Your task to perform on an android device: allow cookies in the chrome app Image 0: 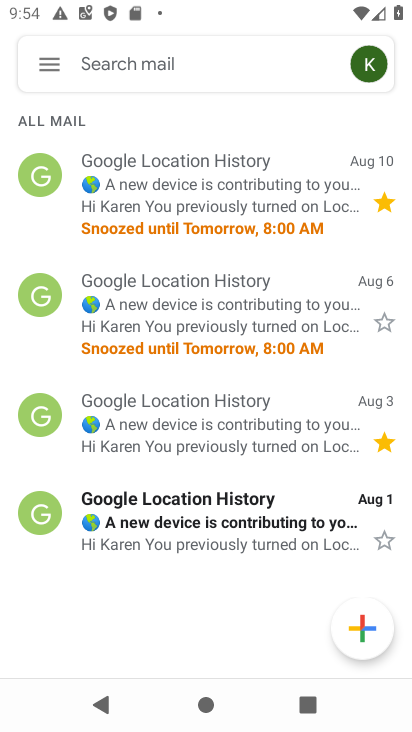
Step 0: press home button
Your task to perform on an android device: allow cookies in the chrome app Image 1: 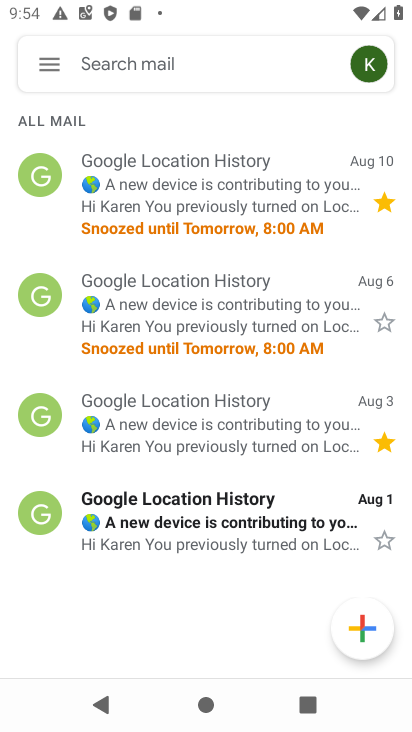
Step 1: press home button
Your task to perform on an android device: allow cookies in the chrome app Image 2: 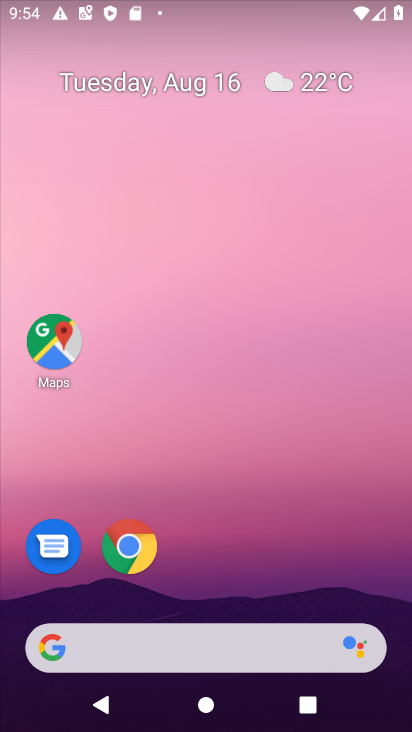
Step 2: click (131, 542)
Your task to perform on an android device: allow cookies in the chrome app Image 3: 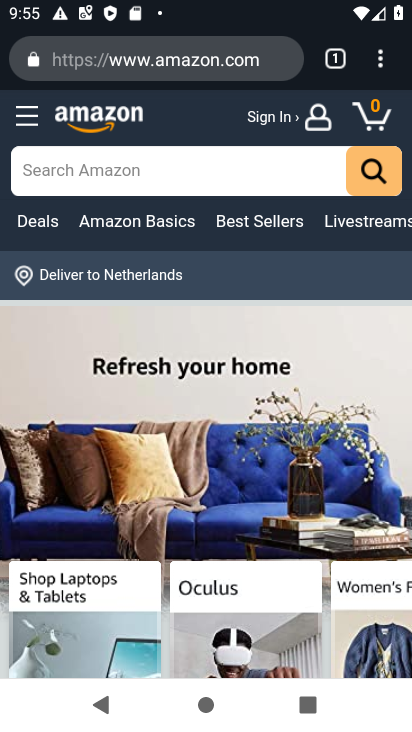
Step 3: click (381, 68)
Your task to perform on an android device: allow cookies in the chrome app Image 4: 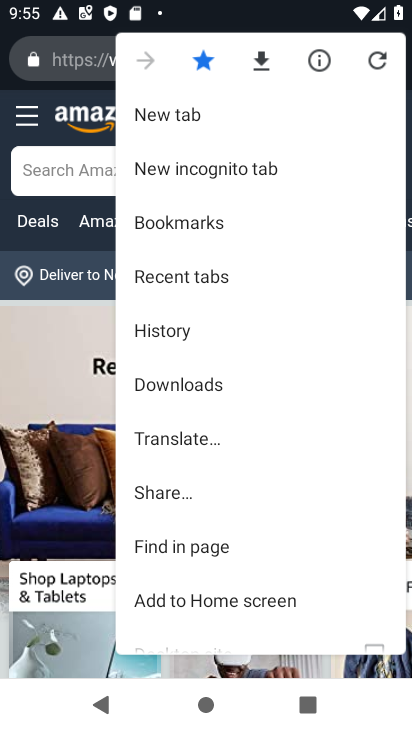
Step 4: click (64, 375)
Your task to perform on an android device: allow cookies in the chrome app Image 5: 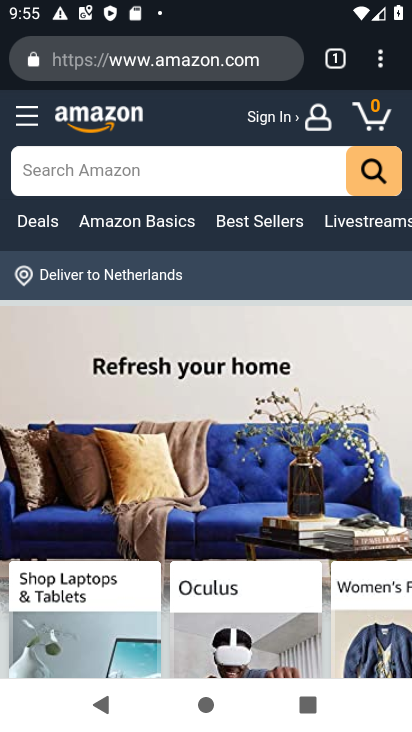
Step 5: press back button
Your task to perform on an android device: allow cookies in the chrome app Image 6: 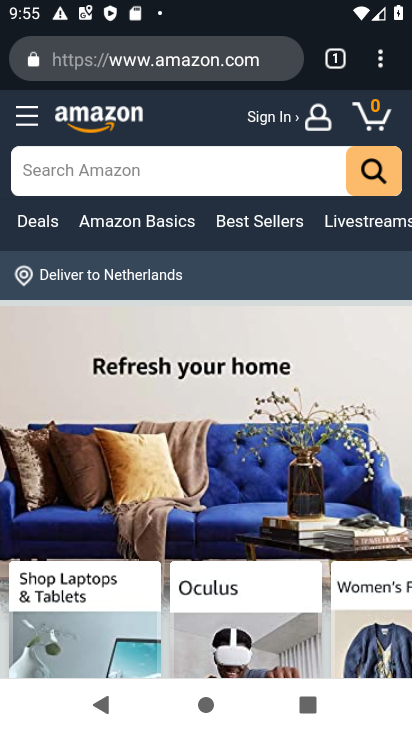
Step 6: press back button
Your task to perform on an android device: allow cookies in the chrome app Image 7: 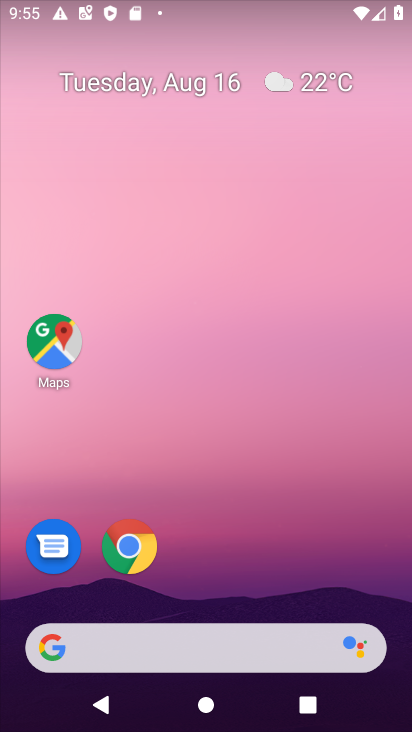
Step 7: click (132, 546)
Your task to perform on an android device: allow cookies in the chrome app Image 8: 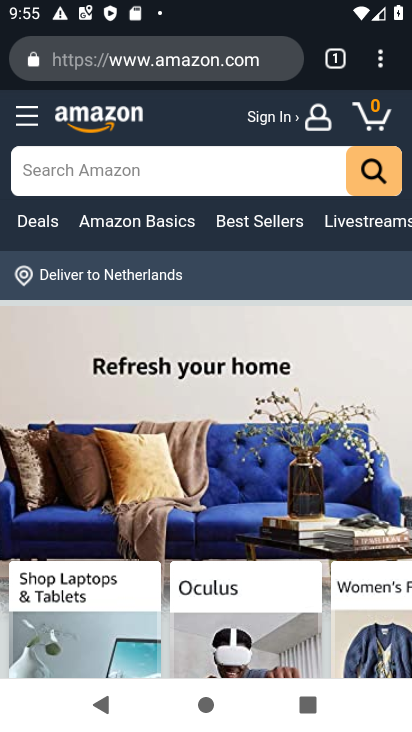
Step 8: click (380, 66)
Your task to perform on an android device: allow cookies in the chrome app Image 9: 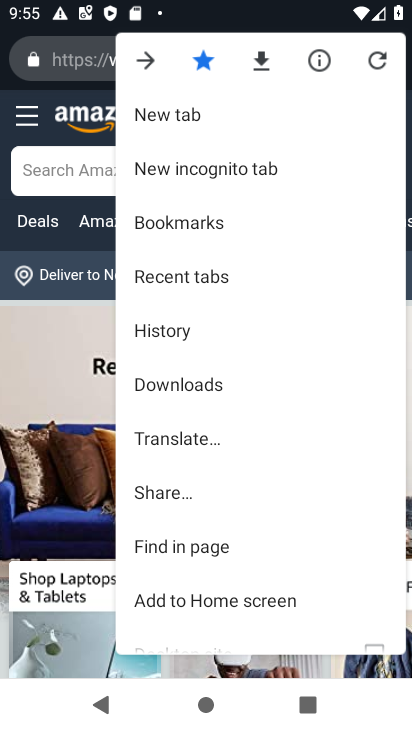
Step 9: drag from (232, 511) to (253, 138)
Your task to perform on an android device: allow cookies in the chrome app Image 10: 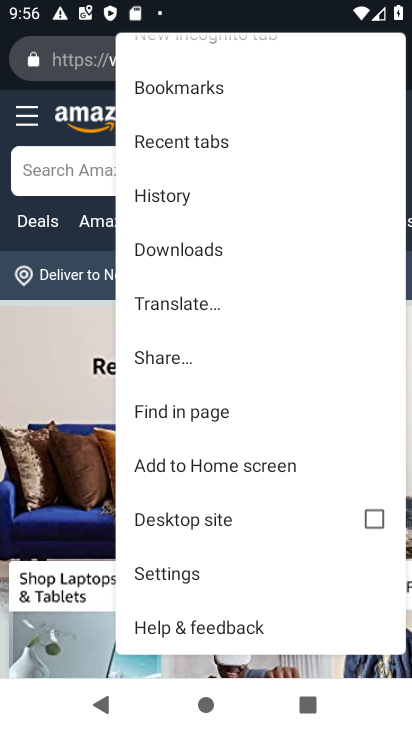
Step 10: click (197, 576)
Your task to perform on an android device: allow cookies in the chrome app Image 11: 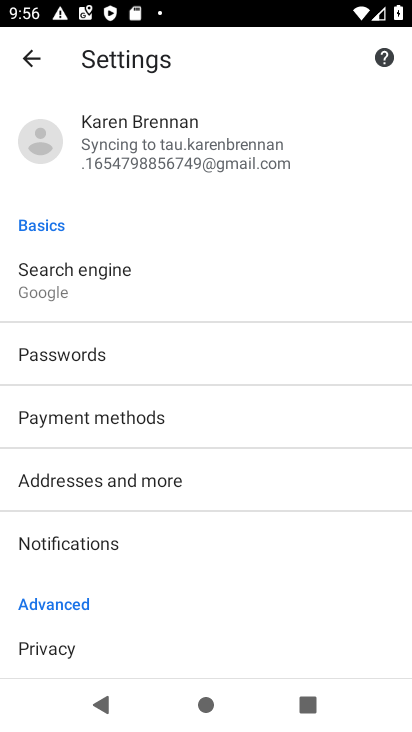
Step 11: drag from (214, 558) to (215, 154)
Your task to perform on an android device: allow cookies in the chrome app Image 12: 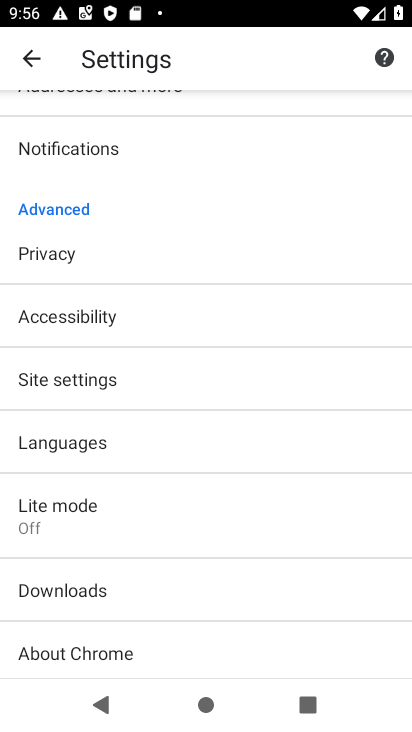
Step 12: click (162, 370)
Your task to perform on an android device: allow cookies in the chrome app Image 13: 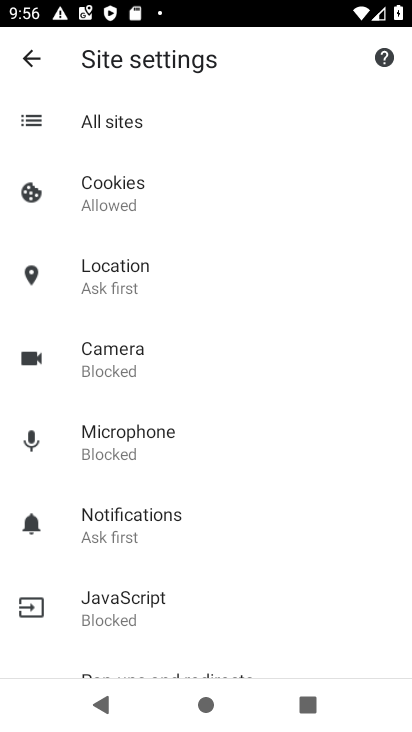
Step 13: click (129, 188)
Your task to perform on an android device: allow cookies in the chrome app Image 14: 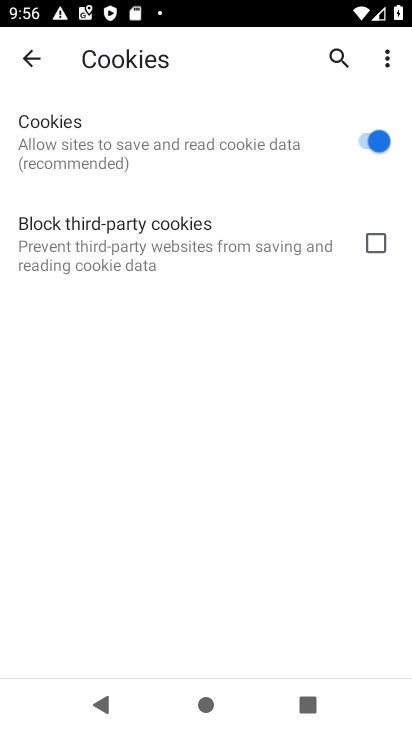
Step 14: task complete